Your task to perform on an android device: What's a good restaurant in Las Vegas? Image 0: 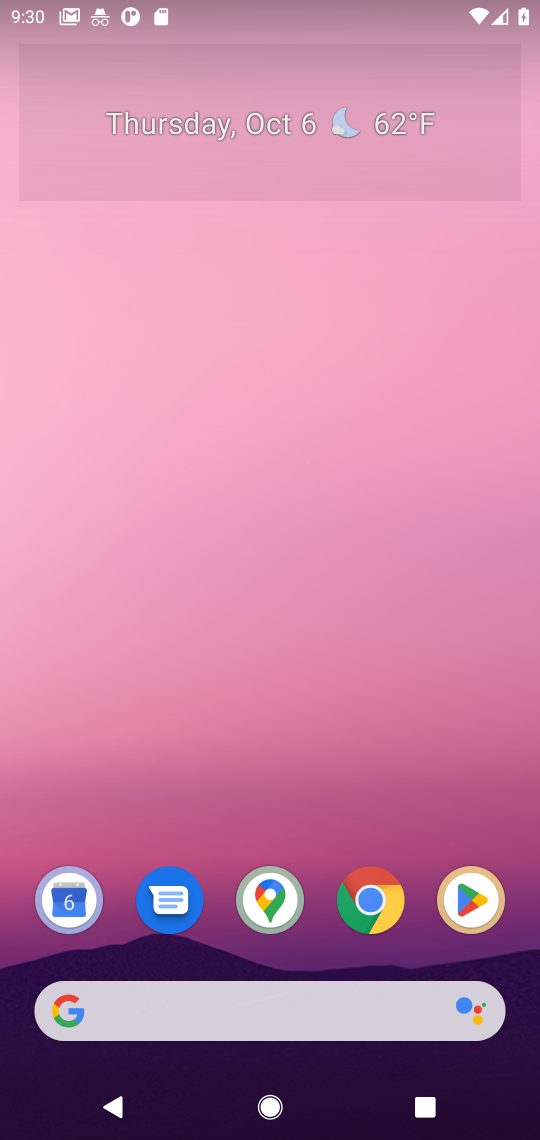
Step 0: press home button
Your task to perform on an android device: What's a good restaurant in Las Vegas? Image 1: 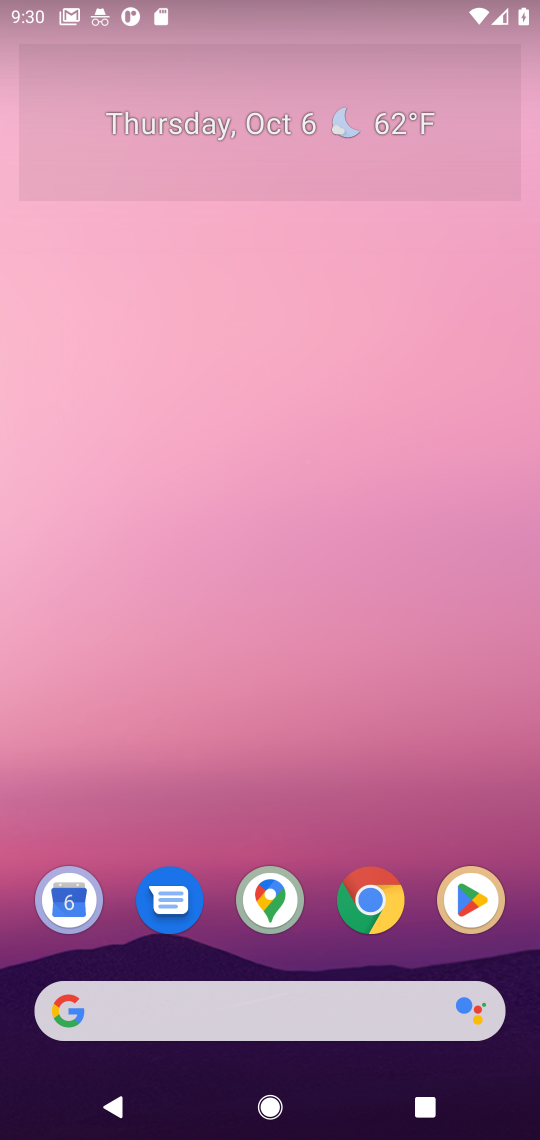
Step 1: click (278, 1014)
Your task to perform on an android device: What's a good restaurant in Las Vegas? Image 2: 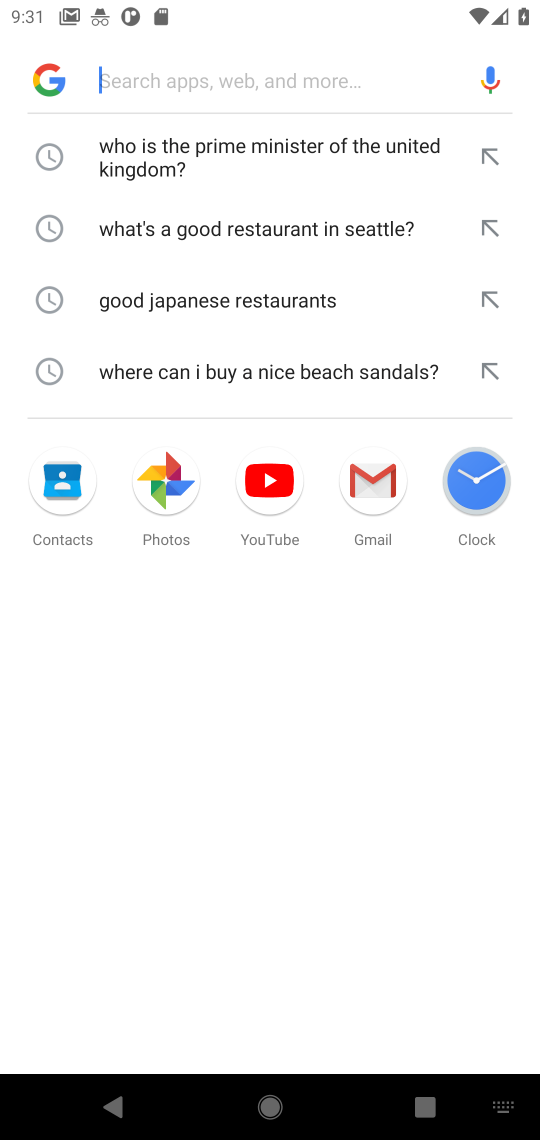
Step 2: type "What's a good restaurant in Las Vegas?"
Your task to perform on an android device: What's a good restaurant in Las Vegas? Image 3: 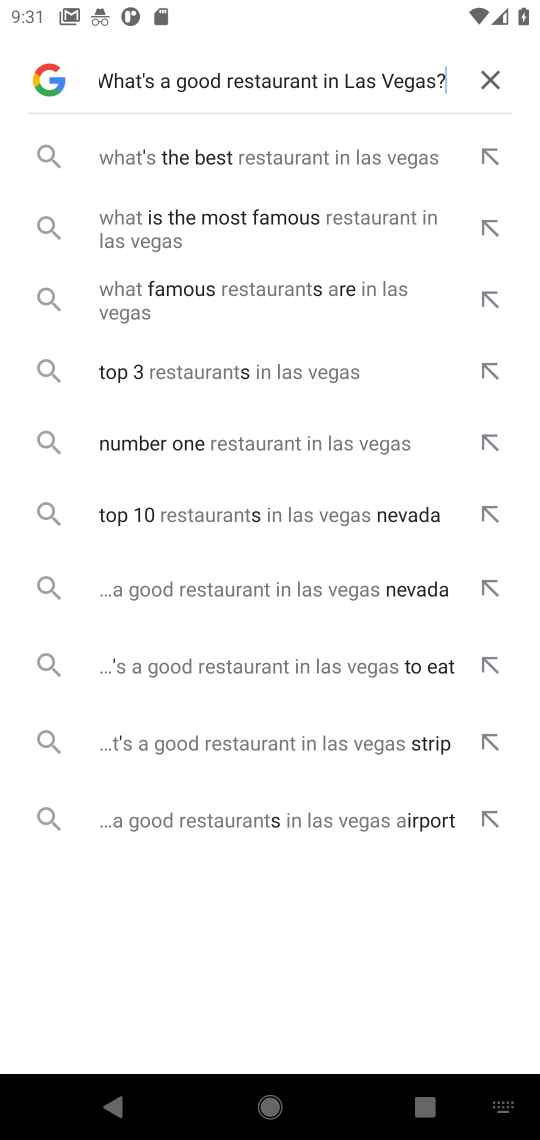
Step 3: press enter
Your task to perform on an android device: What's a good restaurant in Las Vegas? Image 4: 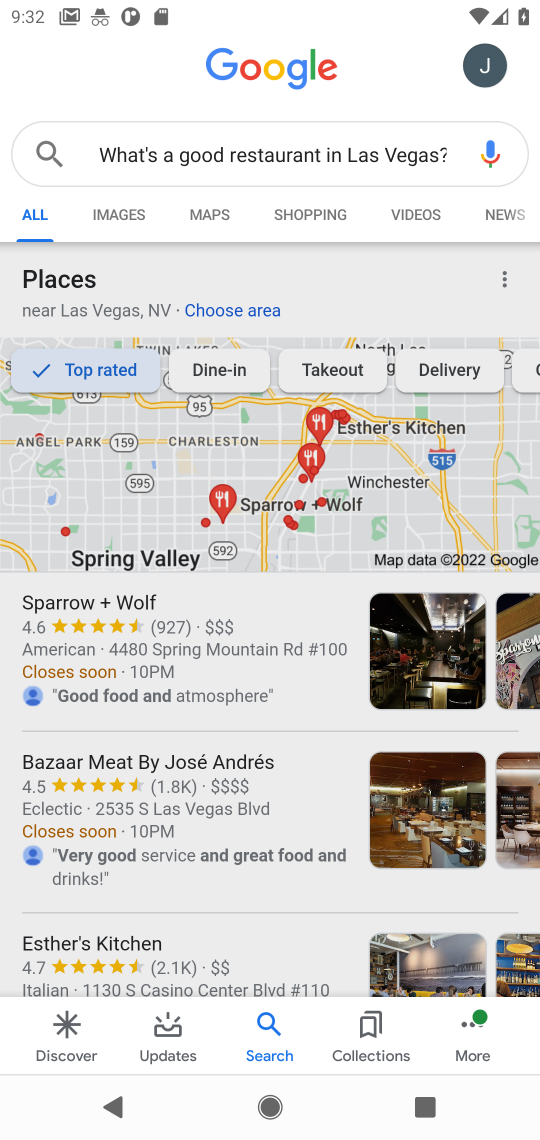
Step 4: task complete